Your task to perform on an android device: Go to eBay Image 0: 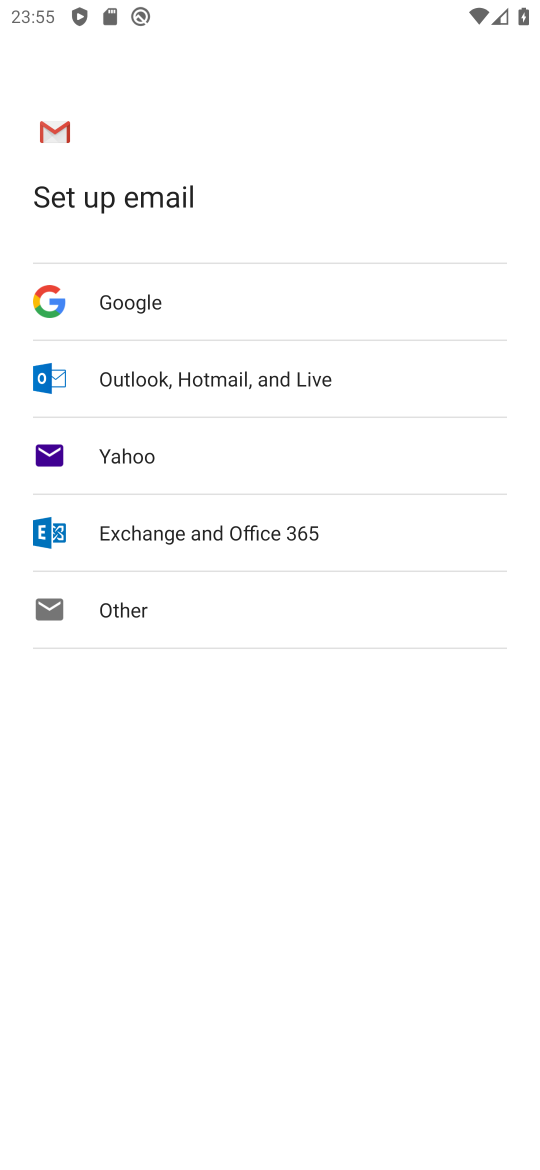
Step 0: press home button
Your task to perform on an android device: Go to eBay Image 1: 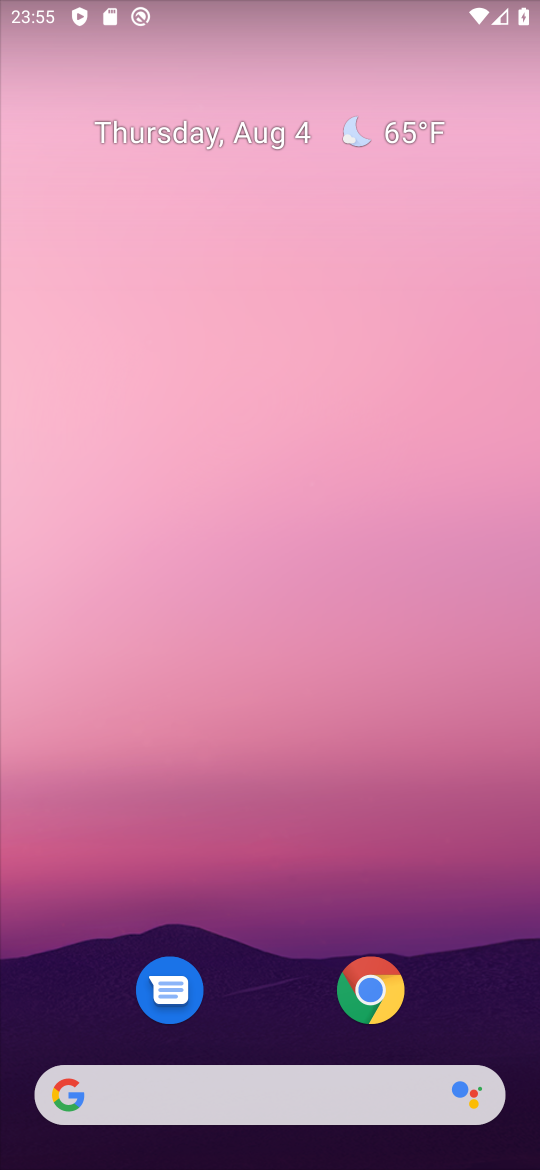
Step 1: click (366, 983)
Your task to perform on an android device: Go to eBay Image 2: 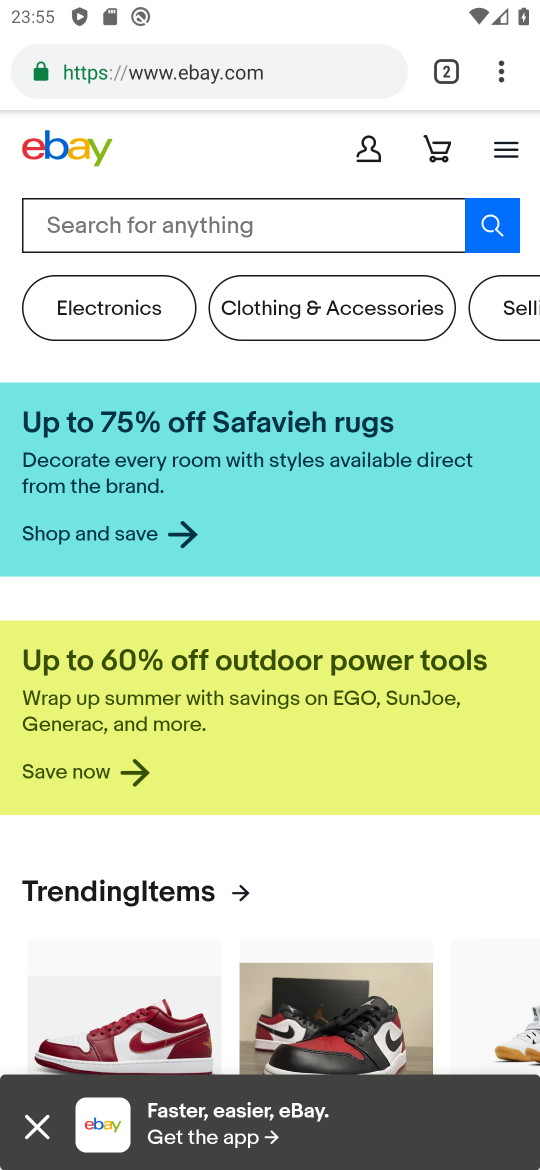
Step 2: task complete